Your task to perform on an android device: turn on javascript in the chrome app Image 0: 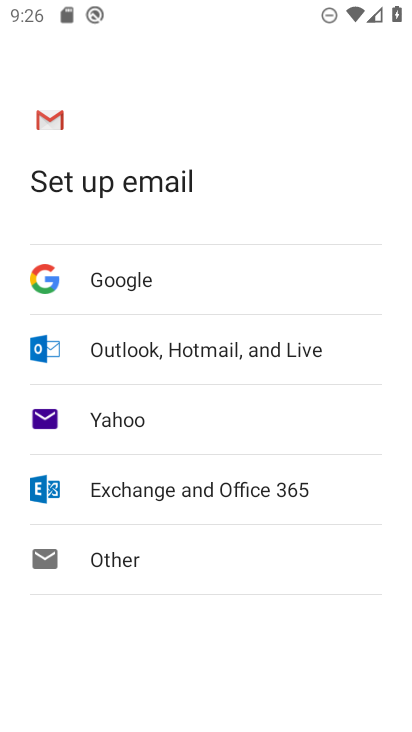
Step 0: press home button
Your task to perform on an android device: turn on javascript in the chrome app Image 1: 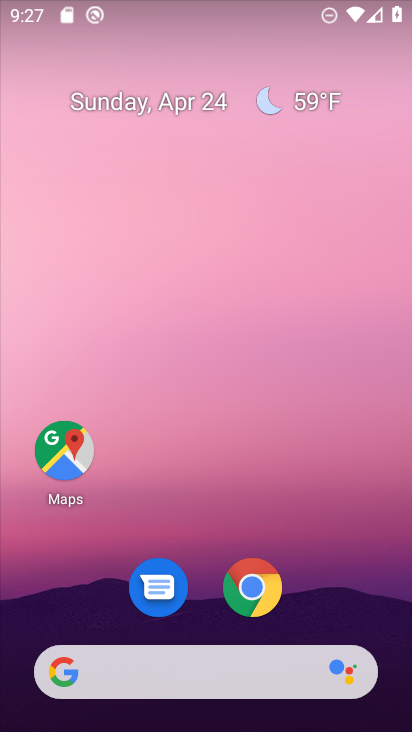
Step 1: click (254, 586)
Your task to perform on an android device: turn on javascript in the chrome app Image 2: 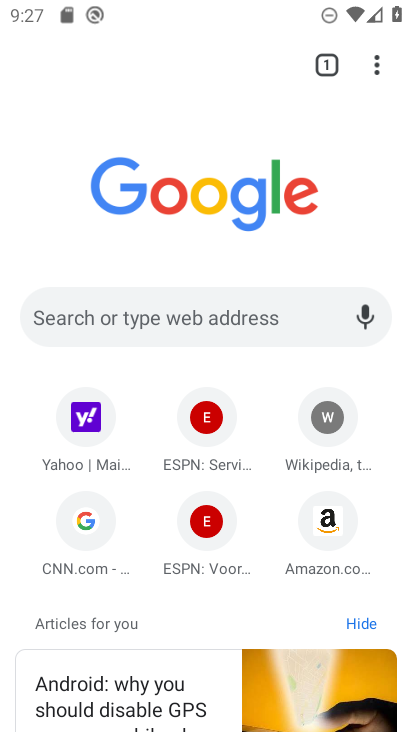
Step 2: click (377, 63)
Your task to perform on an android device: turn on javascript in the chrome app Image 3: 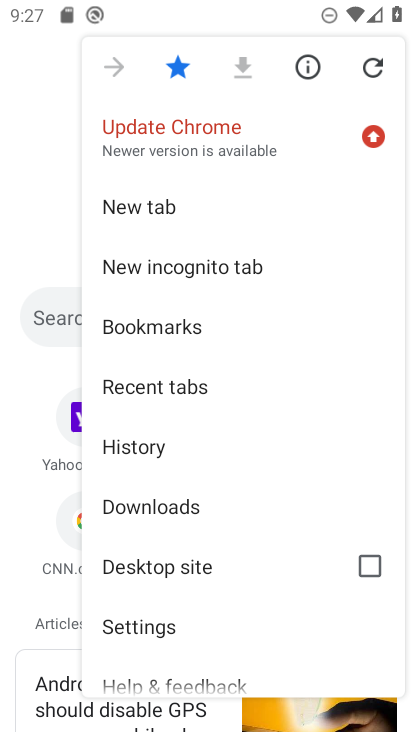
Step 3: click (149, 625)
Your task to perform on an android device: turn on javascript in the chrome app Image 4: 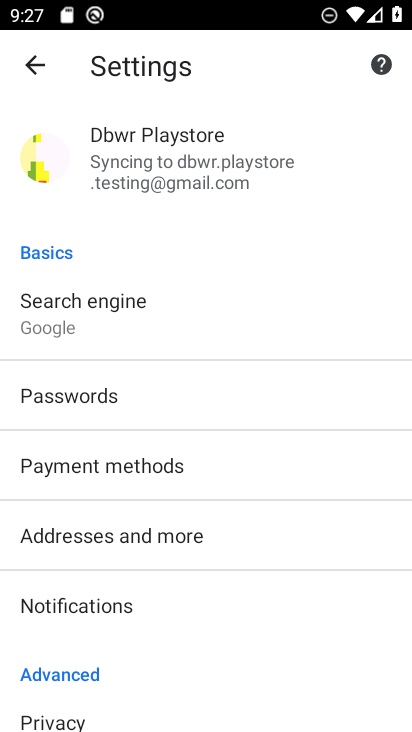
Step 4: drag from (135, 650) to (199, 461)
Your task to perform on an android device: turn on javascript in the chrome app Image 5: 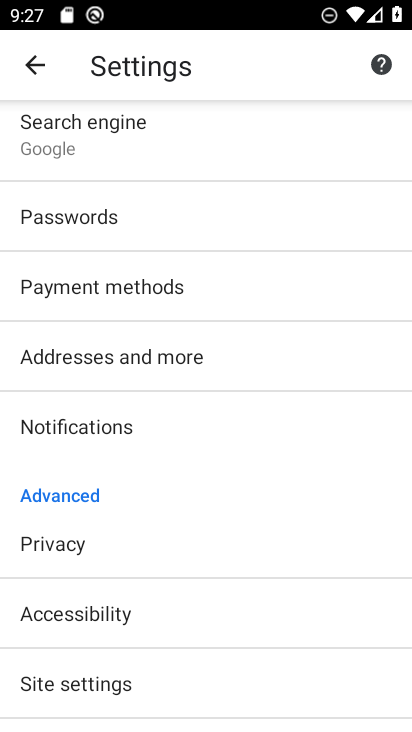
Step 5: drag from (165, 544) to (198, 426)
Your task to perform on an android device: turn on javascript in the chrome app Image 6: 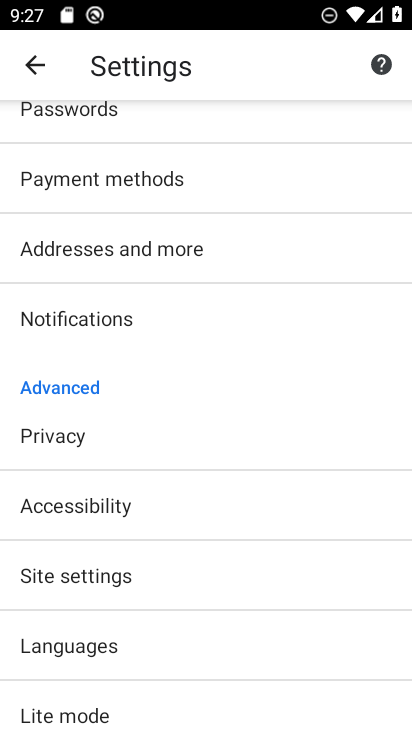
Step 6: click (86, 578)
Your task to perform on an android device: turn on javascript in the chrome app Image 7: 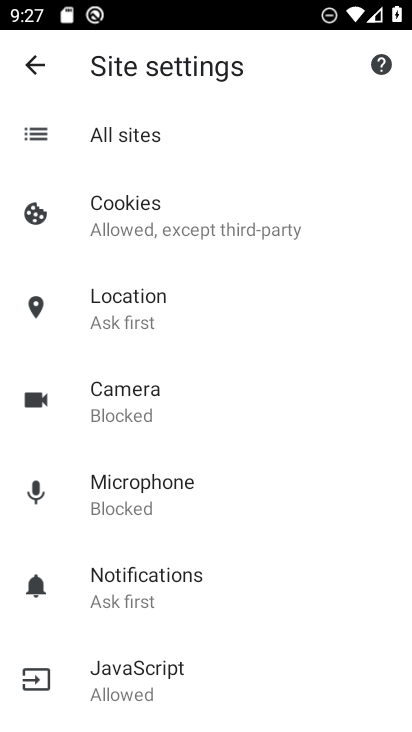
Step 7: click (154, 673)
Your task to perform on an android device: turn on javascript in the chrome app Image 8: 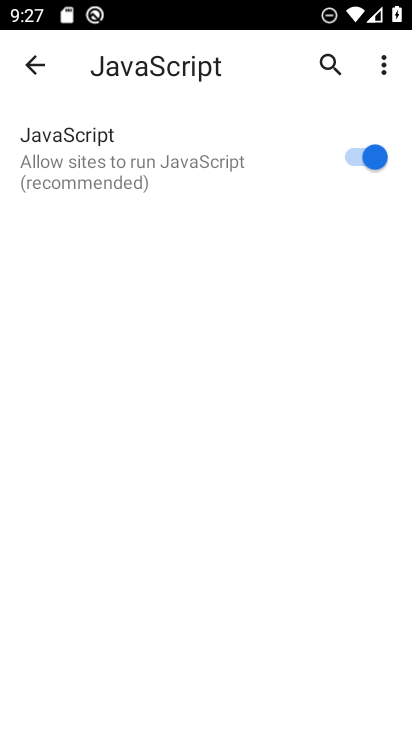
Step 8: task complete